Your task to perform on an android device: Go to Android settings Image 0: 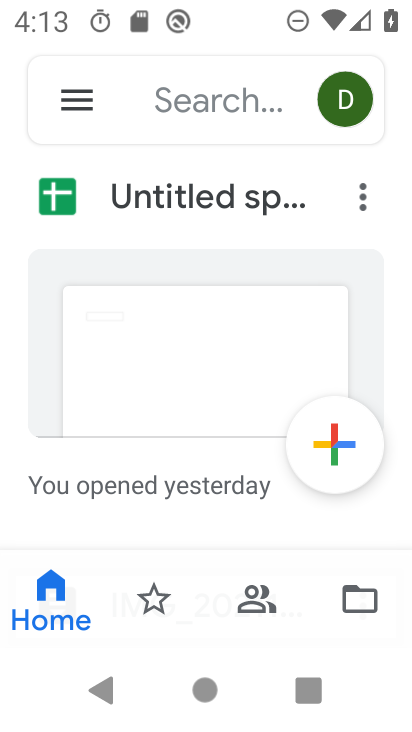
Step 0: press home button
Your task to perform on an android device: Go to Android settings Image 1: 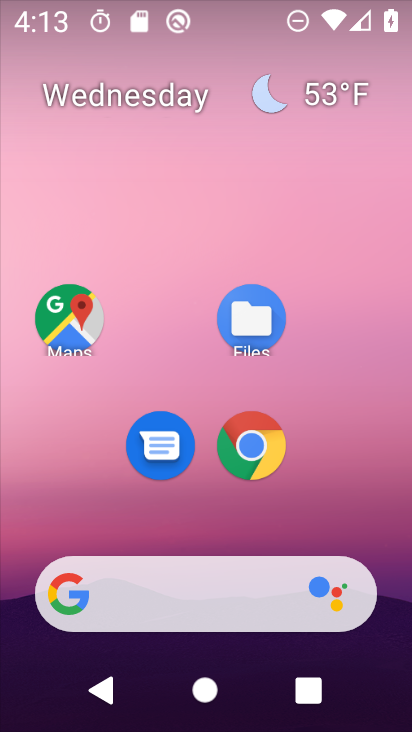
Step 1: drag from (277, 515) to (338, 120)
Your task to perform on an android device: Go to Android settings Image 2: 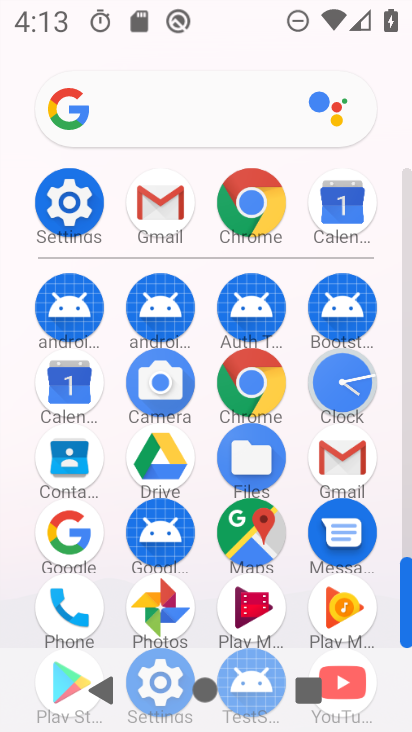
Step 2: click (82, 203)
Your task to perform on an android device: Go to Android settings Image 3: 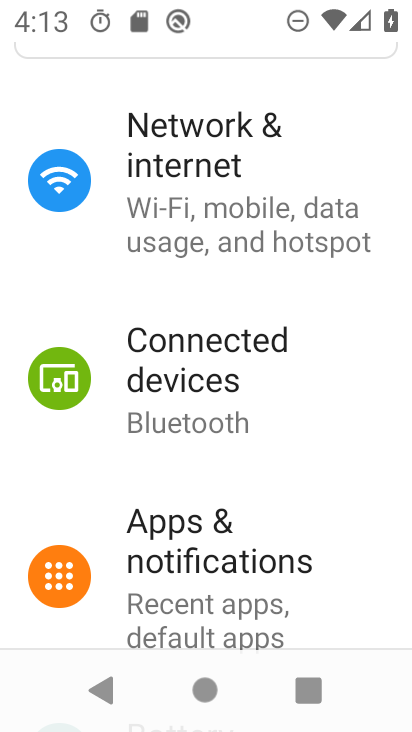
Step 3: task complete